Your task to perform on an android device: check google app version Image 0: 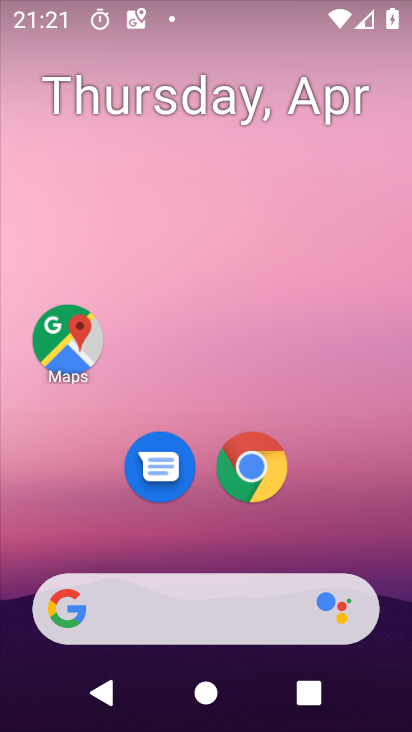
Step 0: drag from (208, 550) to (163, 28)
Your task to perform on an android device: check google app version Image 1: 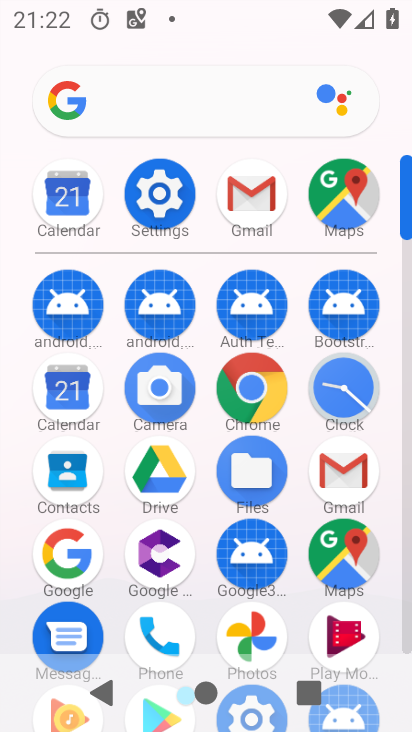
Step 1: click (63, 552)
Your task to perform on an android device: check google app version Image 2: 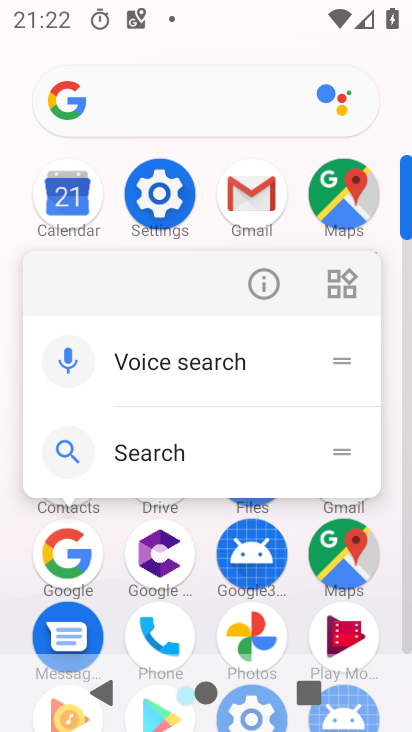
Step 2: click (260, 281)
Your task to perform on an android device: check google app version Image 3: 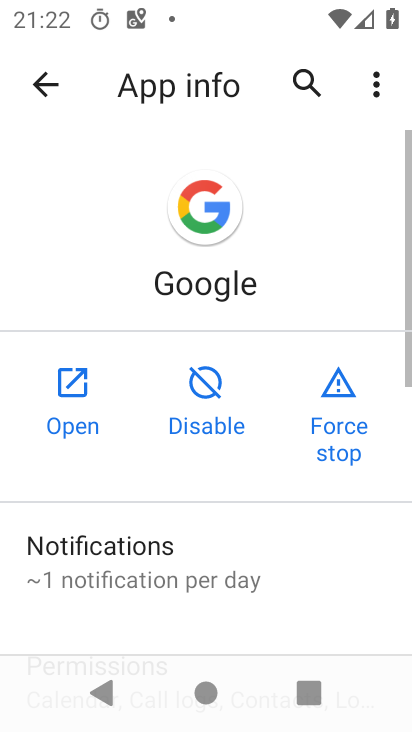
Step 3: drag from (221, 523) to (159, 39)
Your task to perform on an android device: check google app version Image 4: 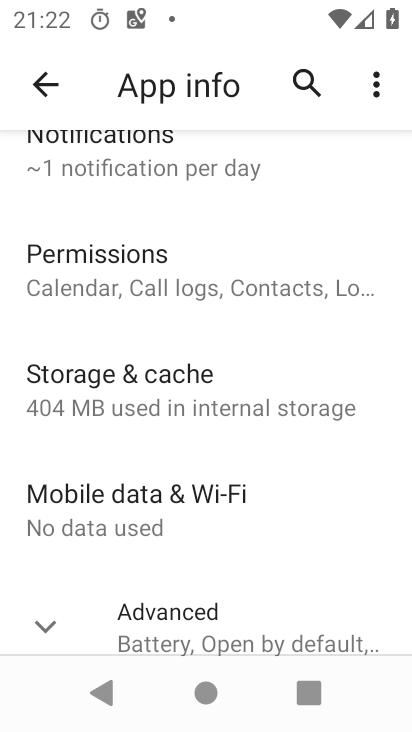
Step 4: click (166, 595)
Your task to perform on an android device: check google app version Image 5: 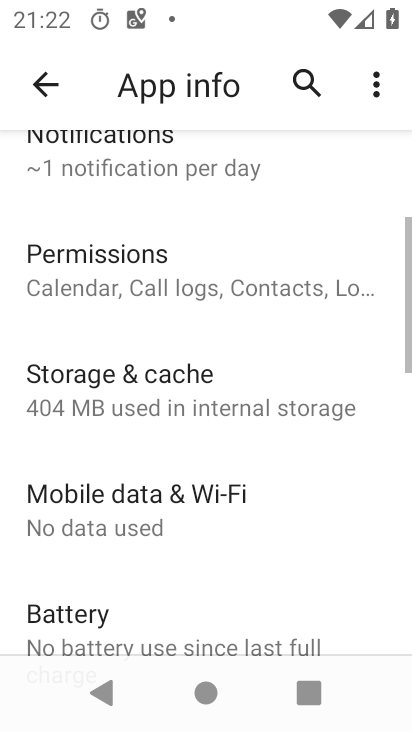
Step 5: task complete